Your task to perform on an android device: Open location settings Image 0: 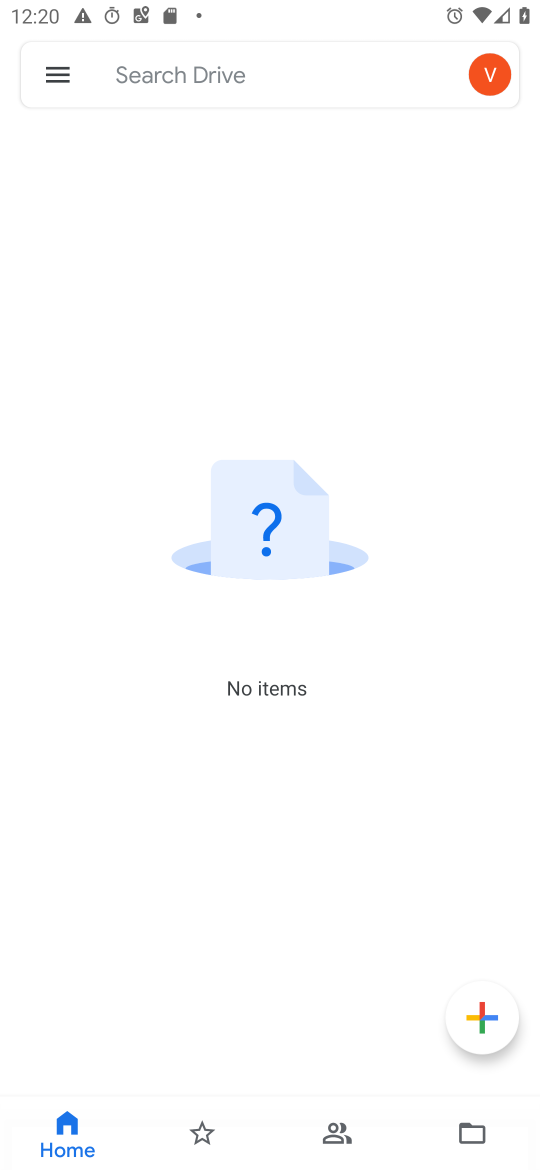
Step 0: press home button
Your task to perform on an android device: Open location settings Image 1: 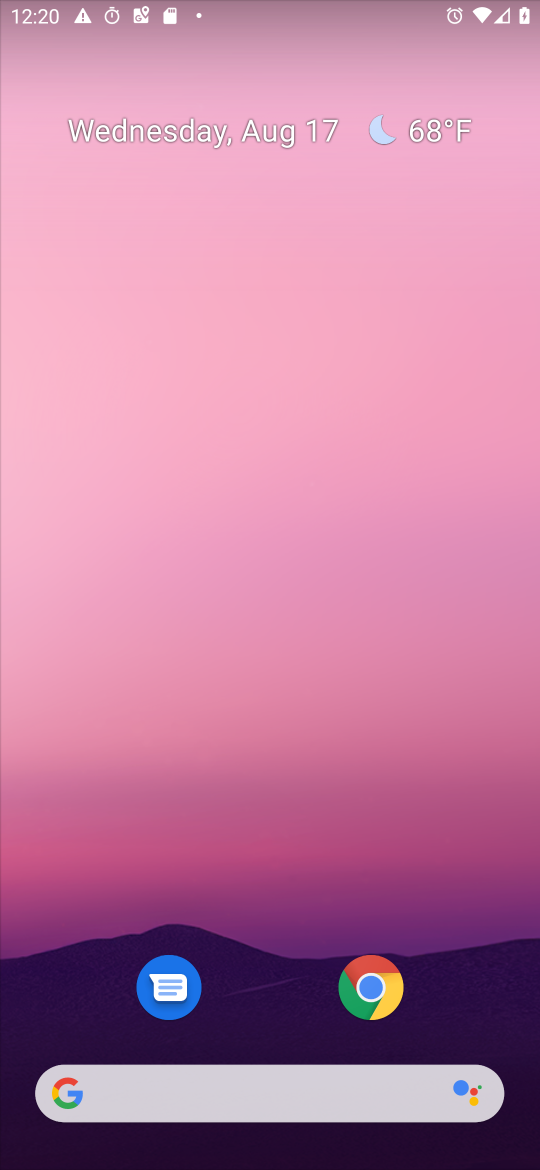
Step 1: drag from (23, 1129) to (365, 444)
Your task to perform on an android device: Open location settings Image 2: 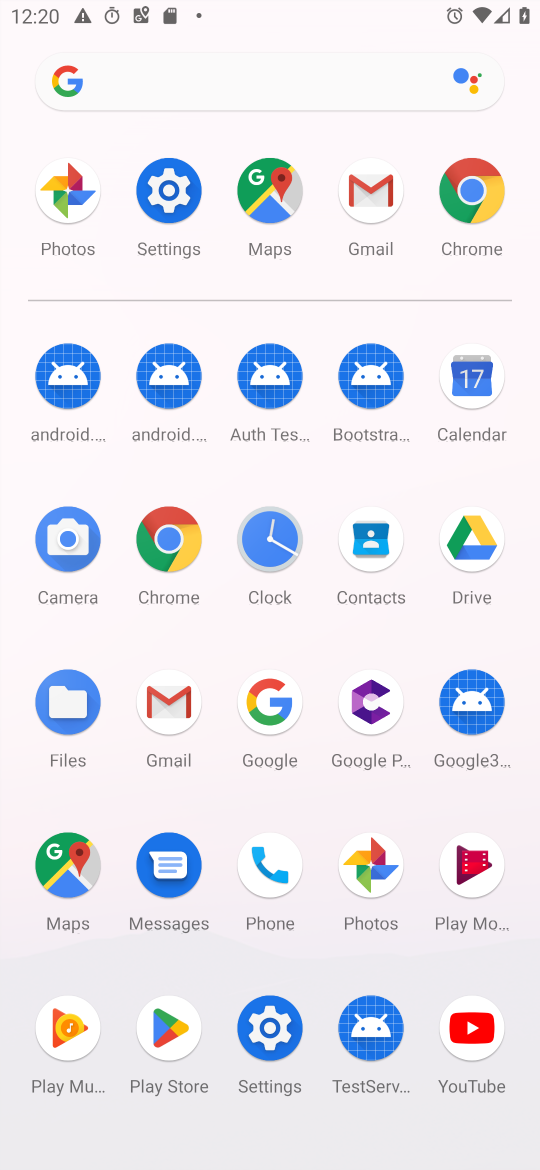
Step 2: click (273, 1060)
Your task to perform on an android device: Open location settings Image 3: 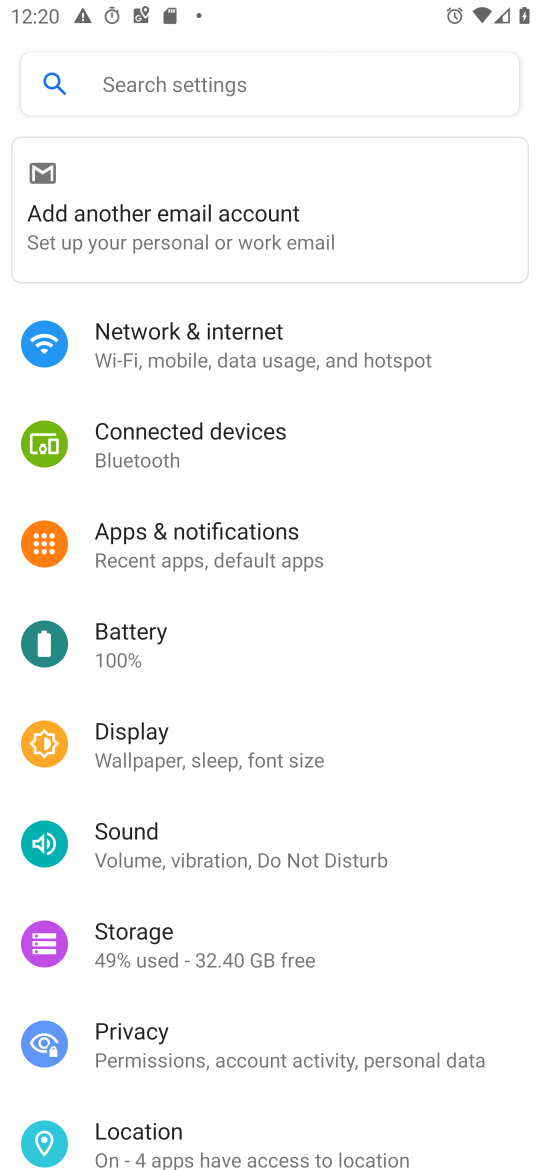
Step 3: click (191, 1135)
Your task to perform on an android device: Open location settings Image 4: 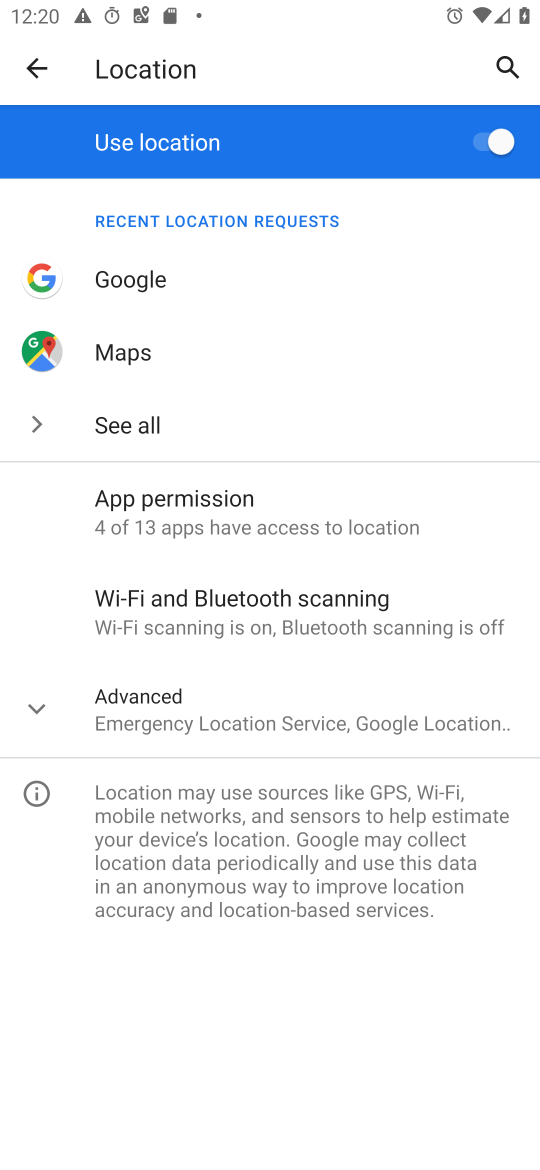
Step 4: task complete